Your task to perform on an android device: Open Maps and search for coffee Image 0: 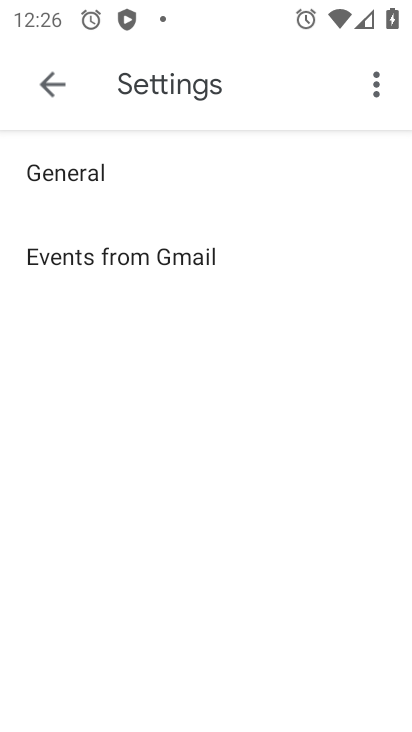
Step 0: click (364, 207)
Your task to perform on an android device: Open Maps and search for coffee Image 1: 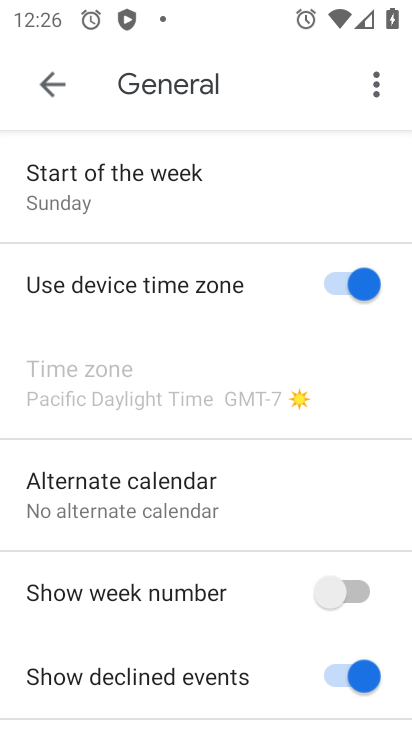
Step 1: press home button
Your task to perform on an android device: Open Maps and search for coffee Image 2: 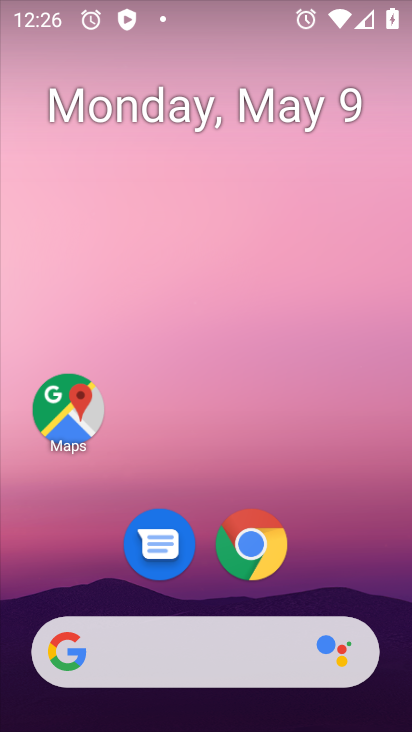
Step 2: click (65, 414)
Your task to perform on an android device: Open Maps and search for coffee Image 3: 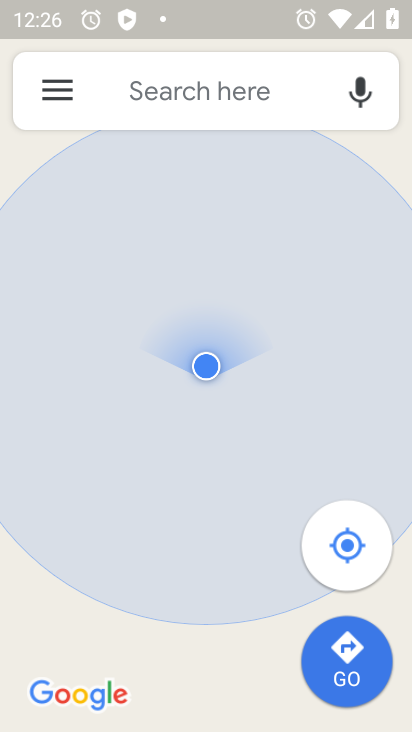
Step 3: click (175, 84)
Your task to perform on an android device: Open Maps and search for coffee Image 4: 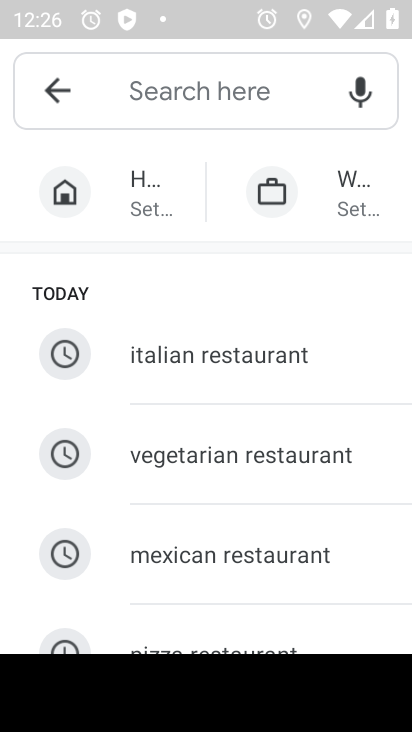
Step 4: type "coffee"
Your task to perform on an android device: Open Maps and search for coffee Image 5: 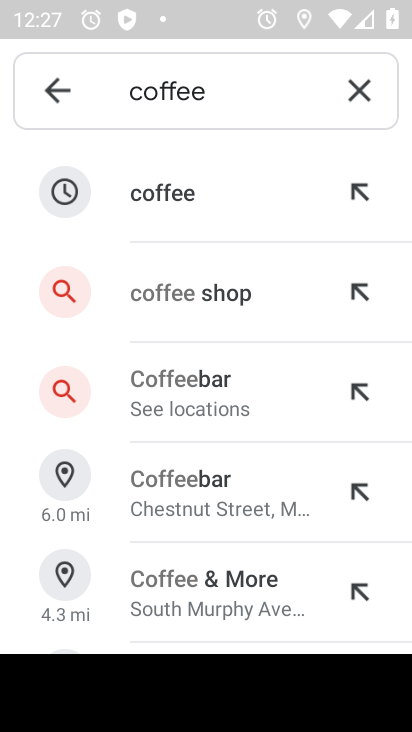
Step 5: click (160, 203)
Your task to perform on an android device: Open Maps and search for coffee Image 6: 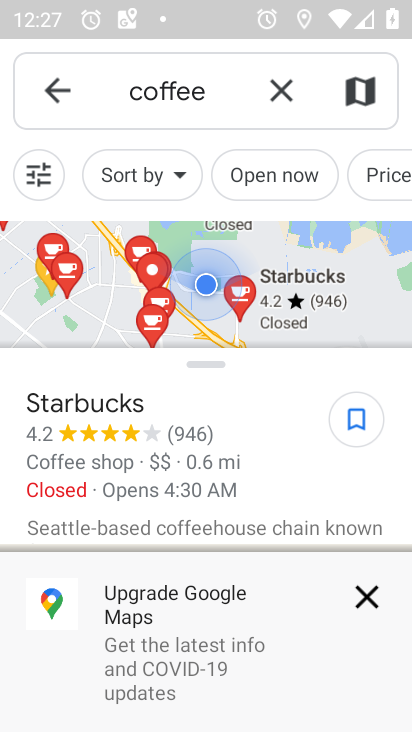
Step 6: task complete